Your task to perform on an android device: Go to Android settings Image 0: 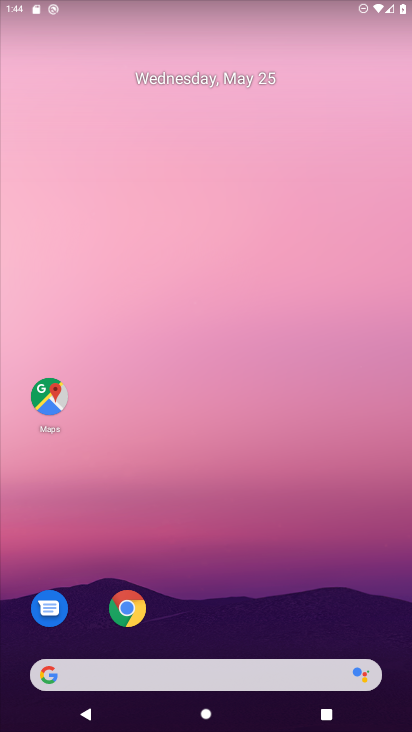
Step 0: drag from (201, 596) to (201, 282)
Your task to perform on an android device: Go to Android settings Image 1: 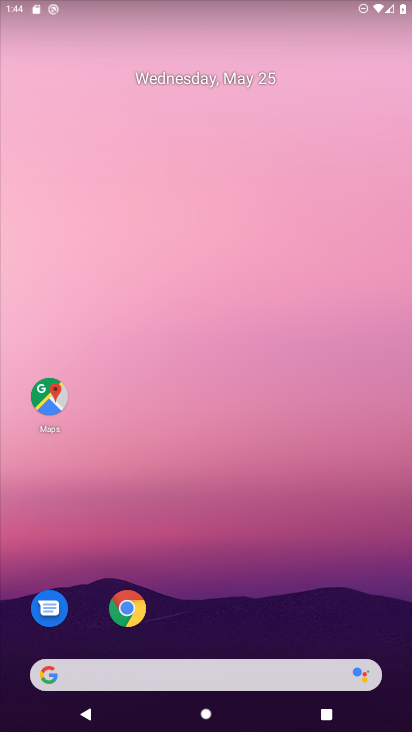
Step 1: drag from (159, 660) to (164, 292)
Your task to perform on an android device: Go to Android settings Image 2: 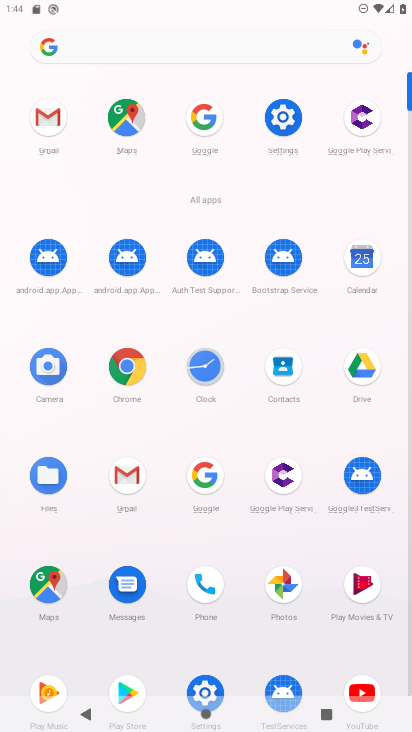
Step 2: click (279, 124)
Your task to perform on an android device: Go to Android settings Image 3: 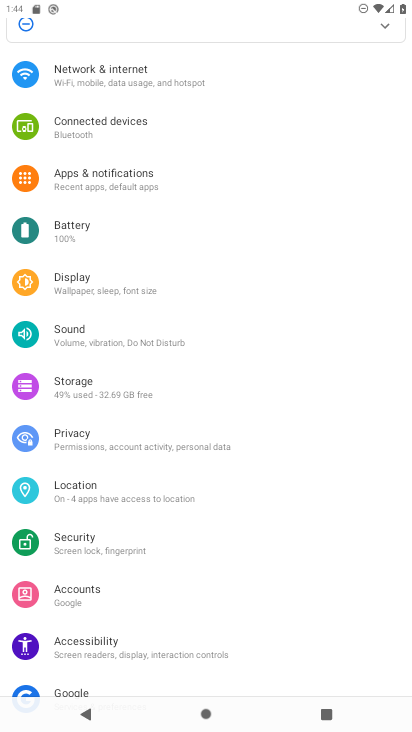
Step 3: task complete